Your task to perform on an android device: toggle airplane mode Image 0: 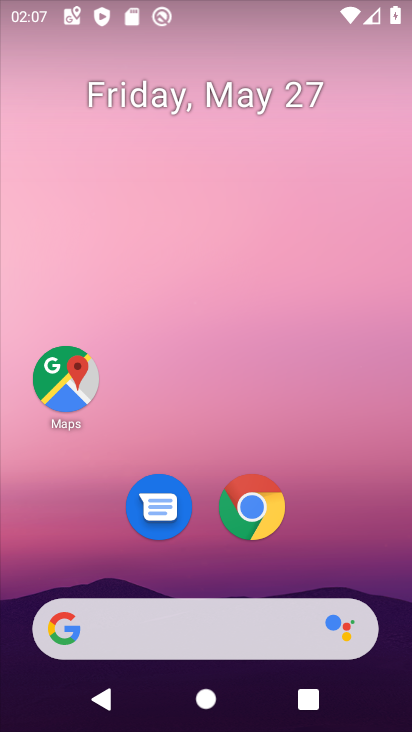
Step 0: drag from (201, 535) to (241, 152)
Your task to perform on an android device: toggle airplane mode Image 1: 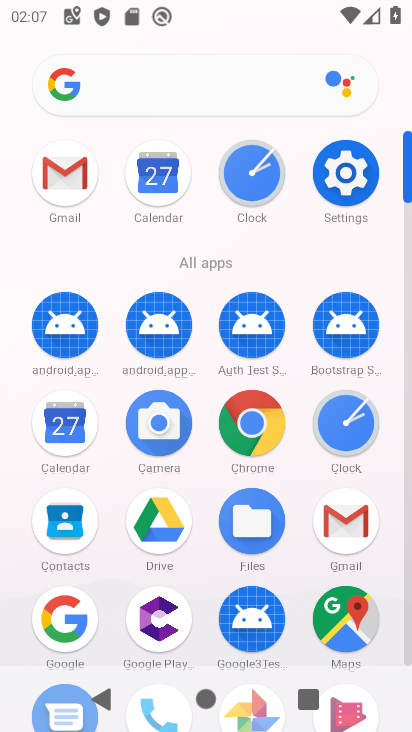
Step 1: click (336, 181)
Your task to perform on an android device: toggle airplane mode Image 2: 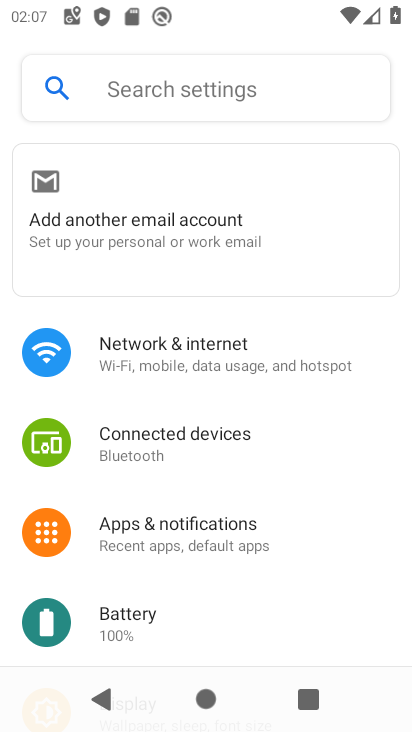
Step 2: click (195, 381)
Your task to perform on an android device: toggle airplane mode Image 3: 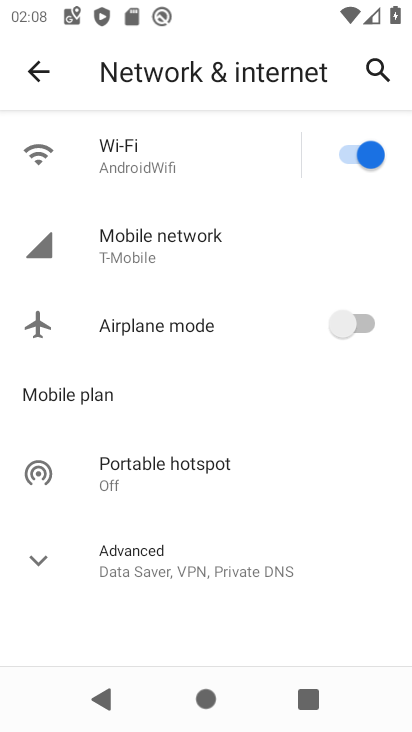
Step 3: click (215, 329)
Your task to perform on an android device: toggle airplane mode Image 4: 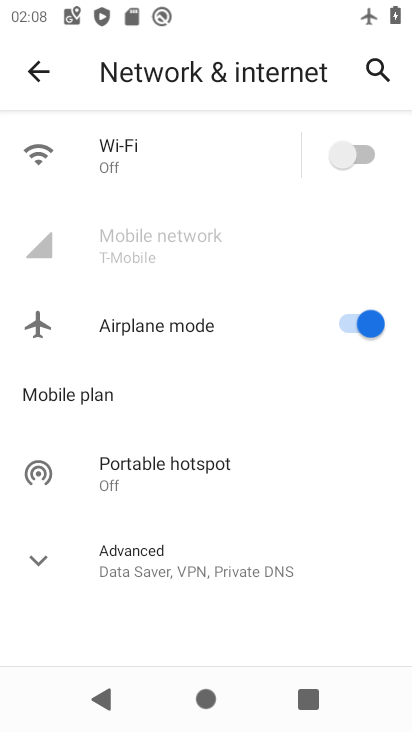
Step 4: task complete